Your task to perform on an android device: Go to privacy settings Image 0: 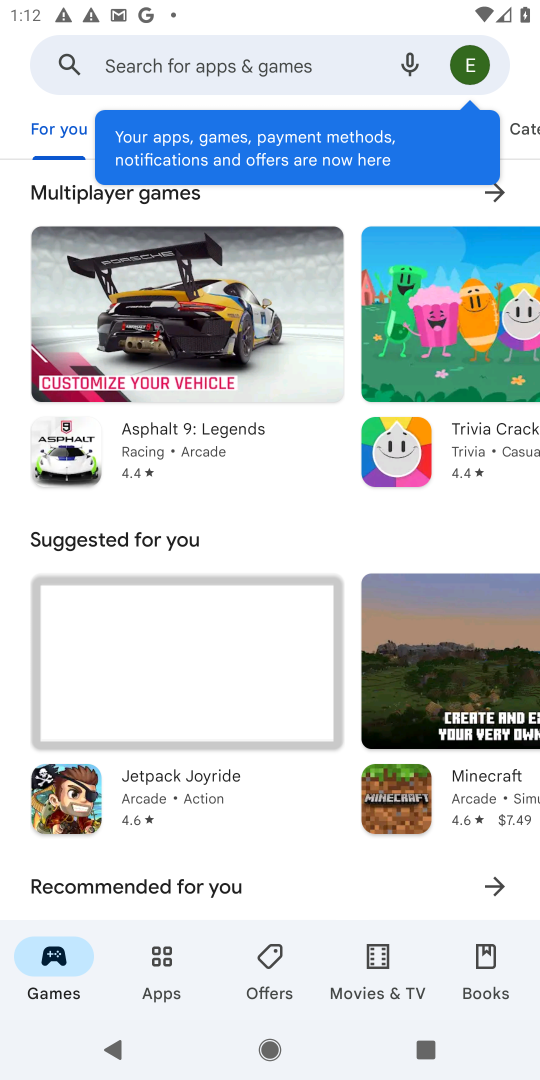
Step 0: press home button
Your task to perform on an android device: Go to privacy settings Image 1: 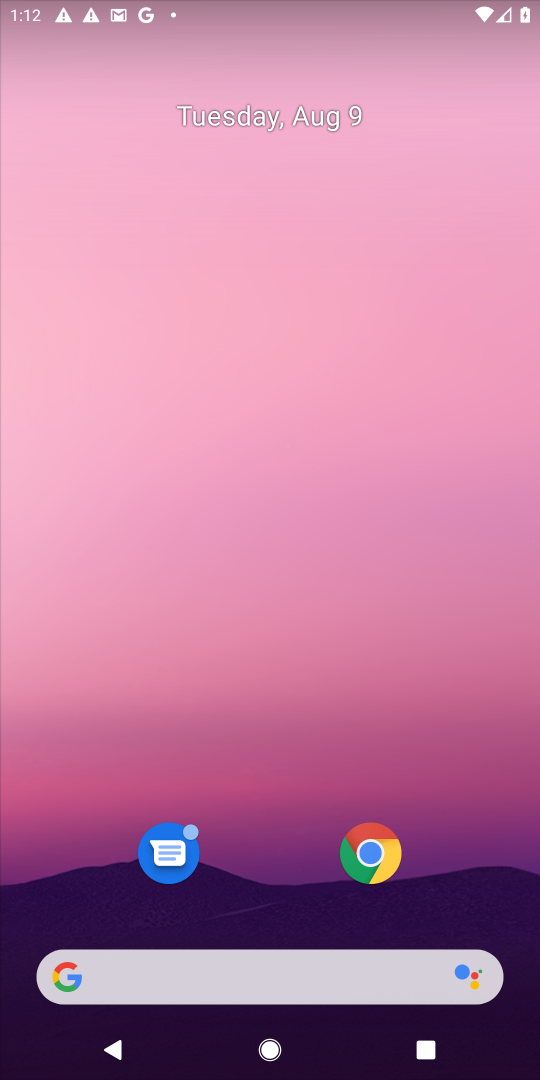
Step 1: drag from (272, 912) to (223, 211)
Your task to perform on an android device: Go to privacy settings Image 2: 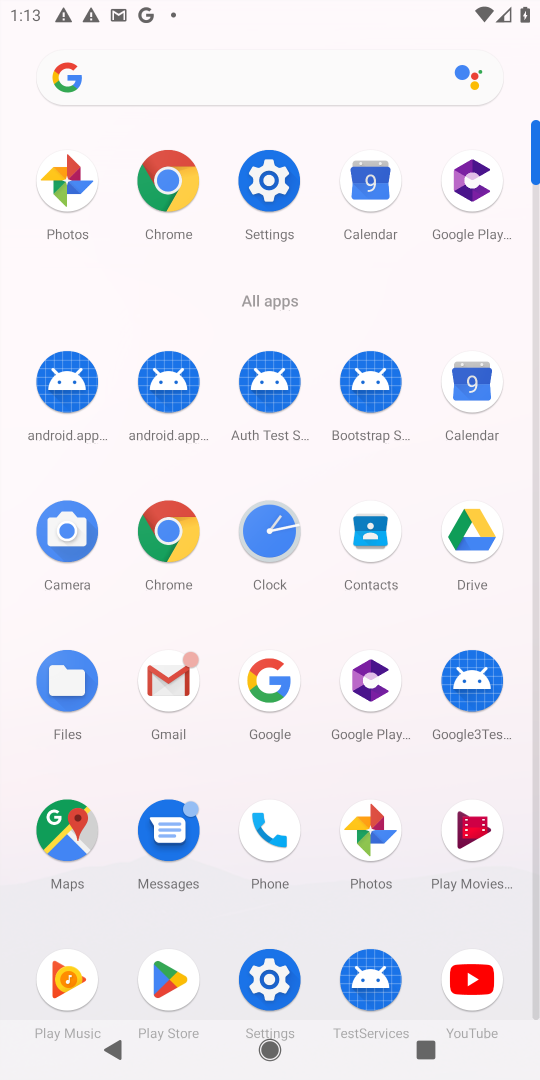
Step 2: click (264, 191)
Your task to perform on an android device: Go to privacy settings Image 3: 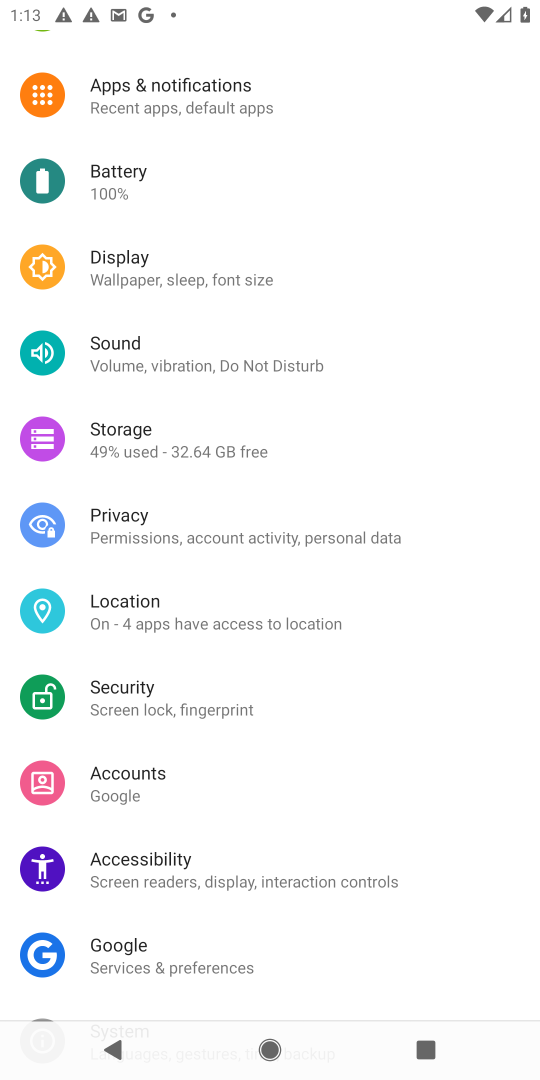
Step 3: click (128, 513)
Your task to perform on an android device: Go to privacy settings Image 4: 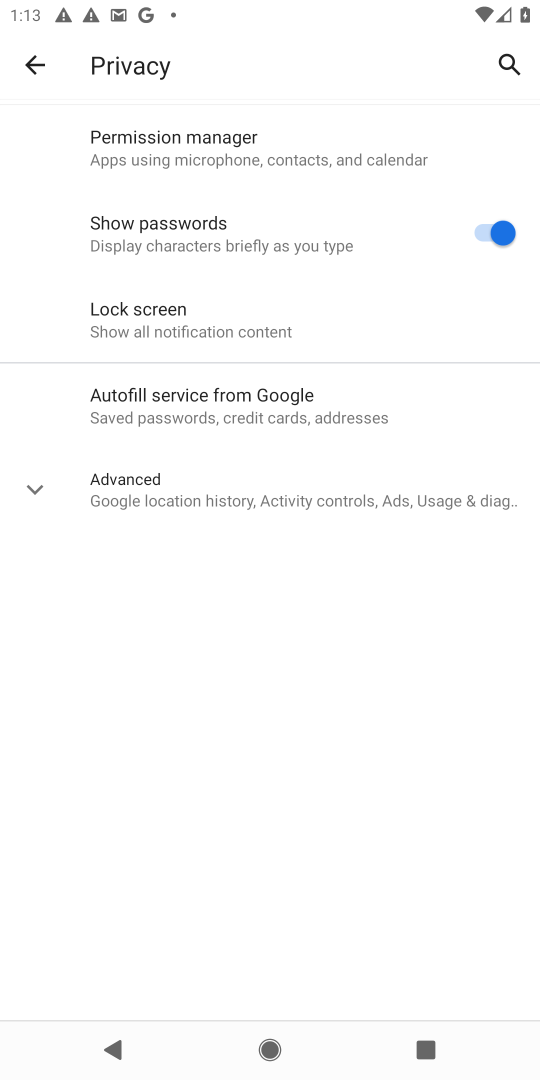
Step 4: click (100, 482)
Your task to perform on an android device: Go to privacy settings Image 5: 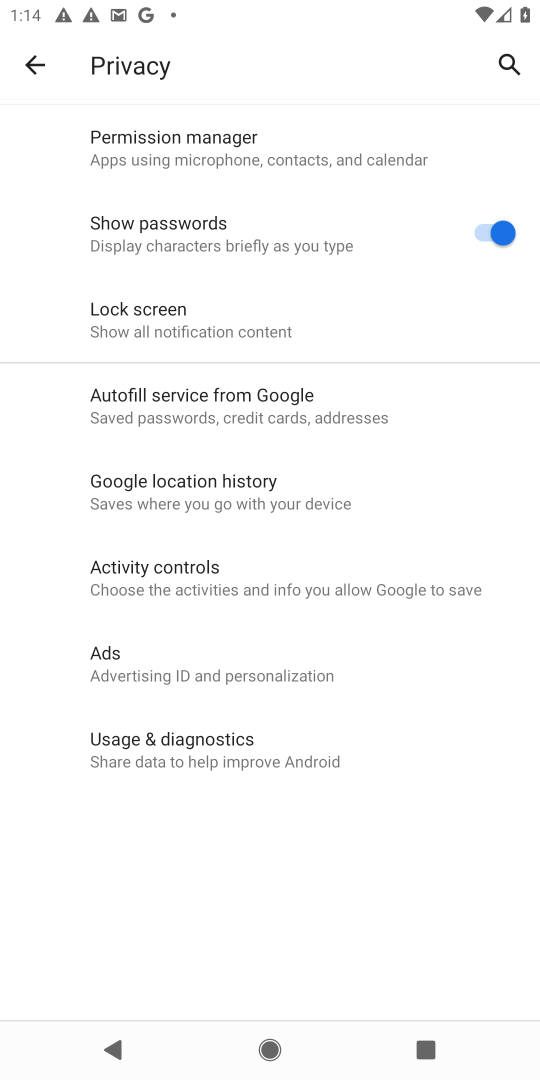
Step 5: task complete